Your task to perform on an android device: Empty the shopping cart on newegg. Add alienware area 51 to the cart on newegg, then select checkout. Image 0: 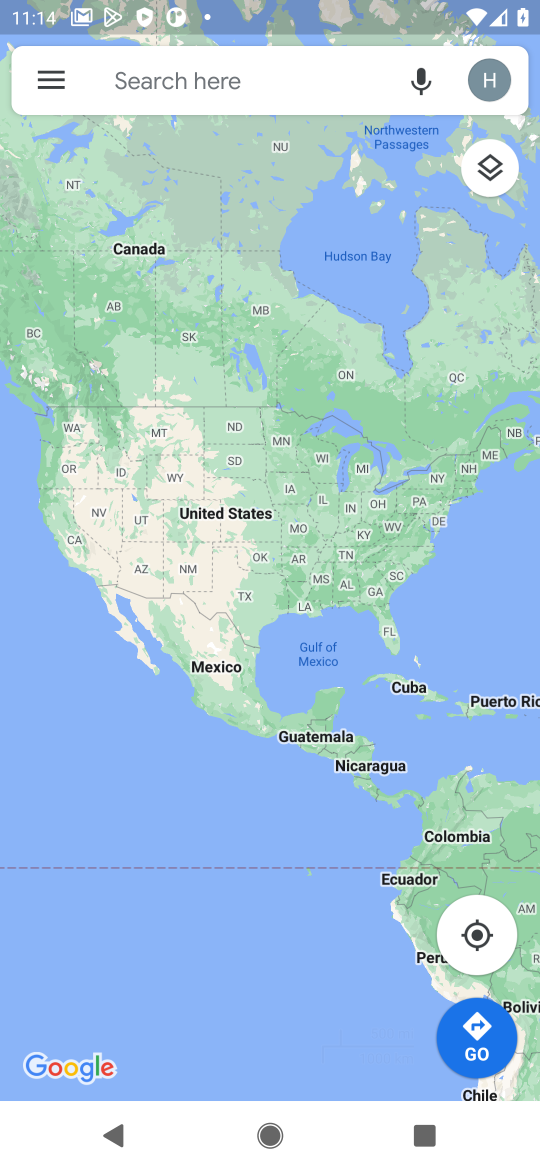
Step 0: press home button
Your task to perform on an android device: Empty the shopping cart on newegg. Add alienware area 51 to the cart on newegg, then select checkout. Image 1: 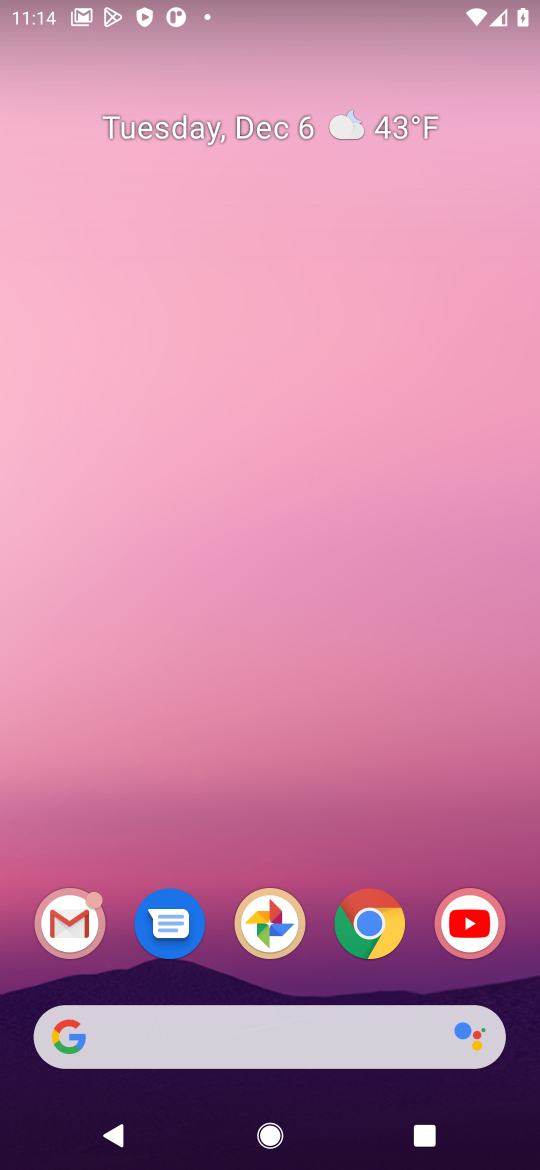
Step 1: click (379, 937)
Your task to perform on an android device: Empty the shopping cart on newegg. Add alienware area 51 to the cart on newegg, then select checkout. Image 2: 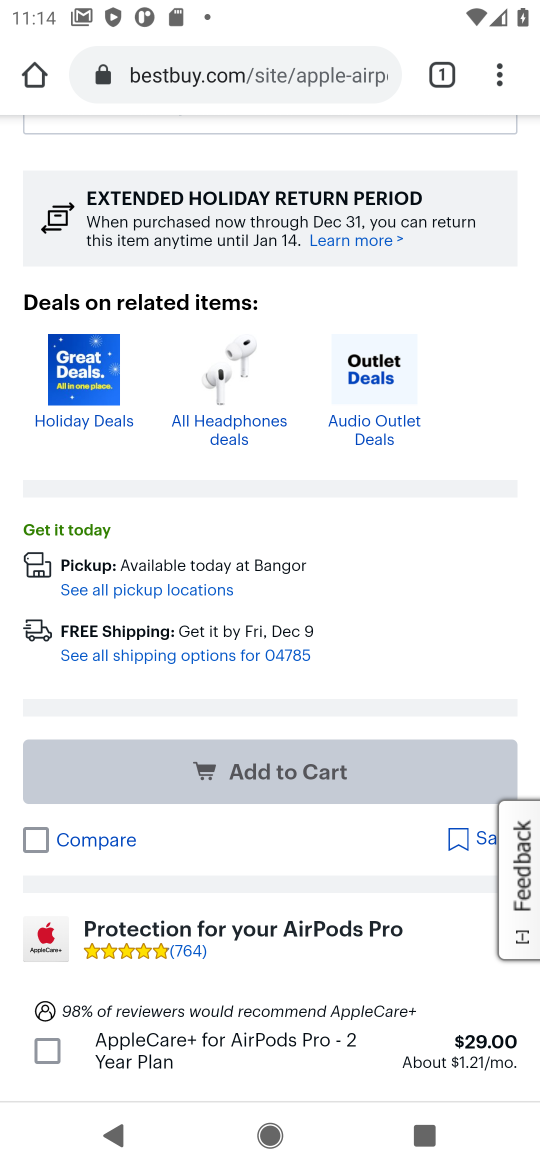
Step 2: click (215, 66)
Your task to perform on an android device: Empty the shopping cart on newegg. Add alienware area 51 to the cart on newegg, then select checkout. Image 3: 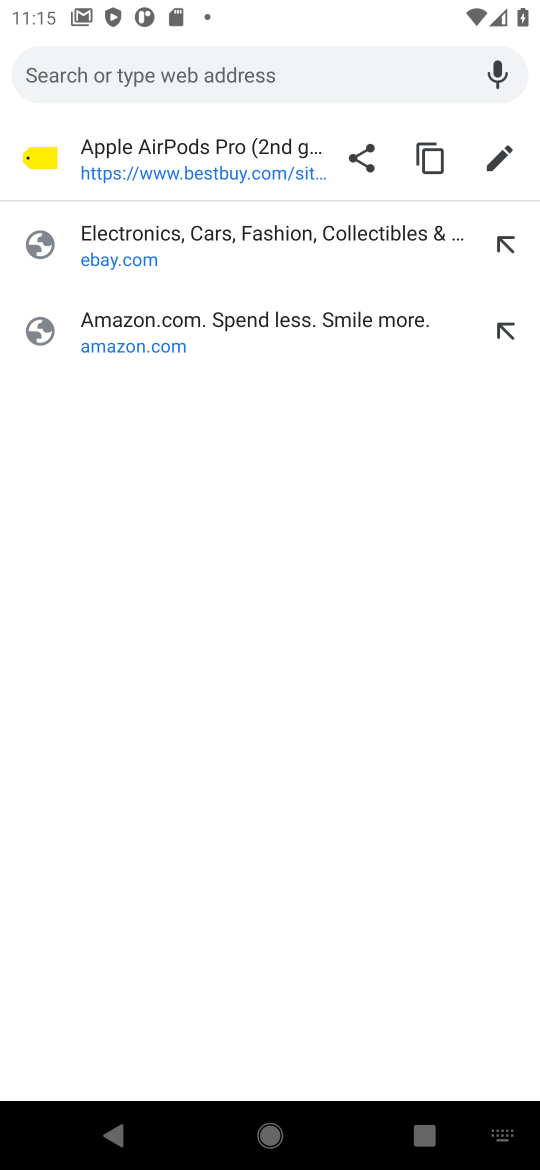
Step 3: type "NEWEGG"
Your task to perform on an android device: Empty the shopping cart on newegg. Add alienware area 51 to the cart on newegg, then select checkout. Image 4: 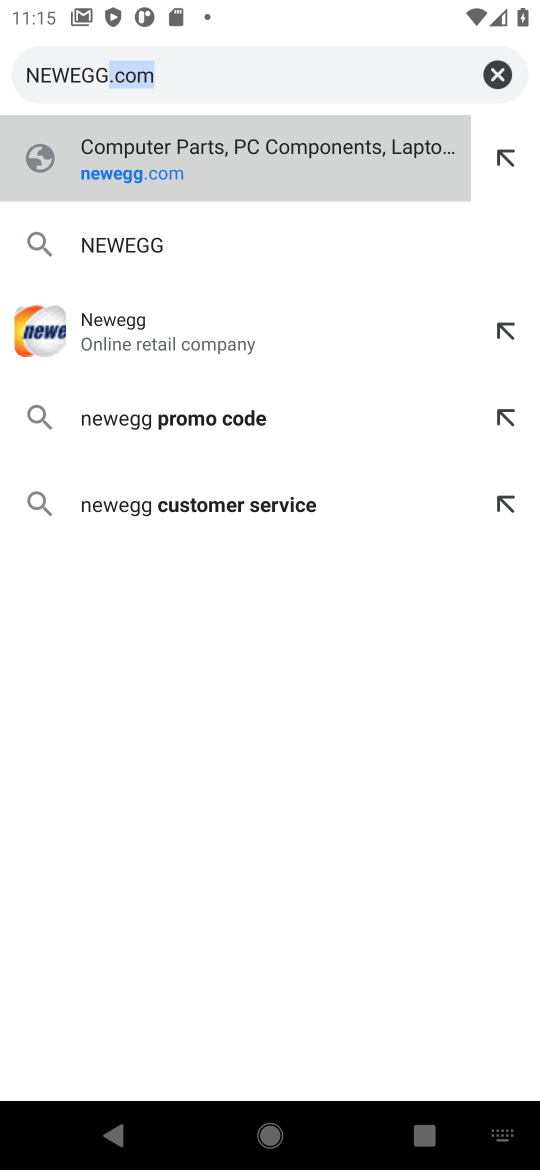
Step 4: click (138, 147)
Your task to perform on an android device: Empty the shopping cart on newegg. Add alienware area 51 to the cart on newegg, then select checkout. Image 5: 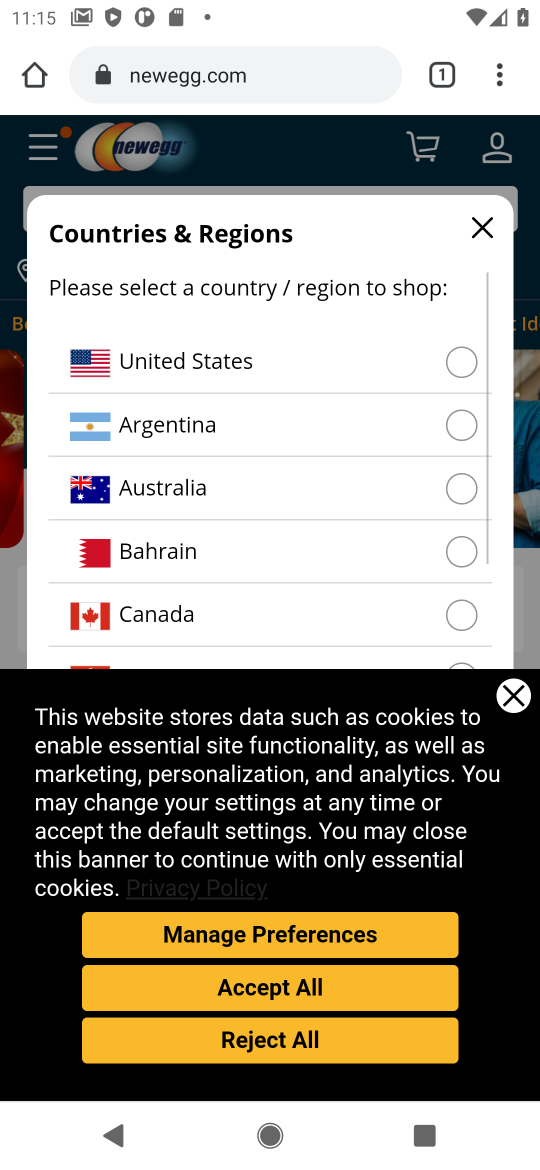
Step 5: click (219, 1037)
Your task to perform on an android device: Empty the shopping cart on newegg. Add alienware area 51 to the cart on newegg, then select checkout. Image 6: 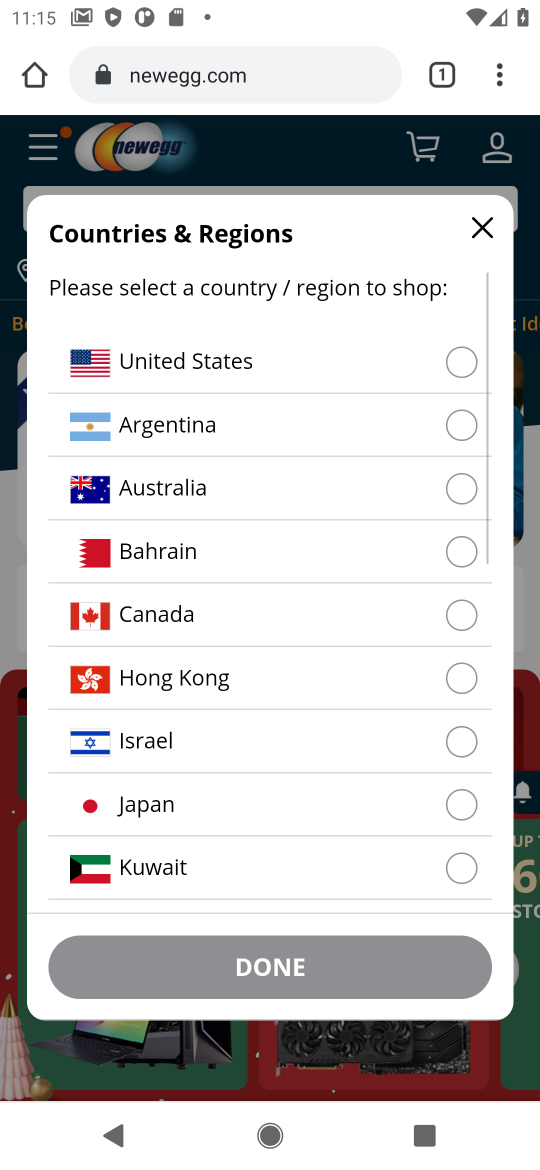
Step 6: click (257, 367)
Your task to perform on an android device: Empty the shopping cart on newegg. Add alienware area 51 to the cart on newegg, then select checkout. Image 7: 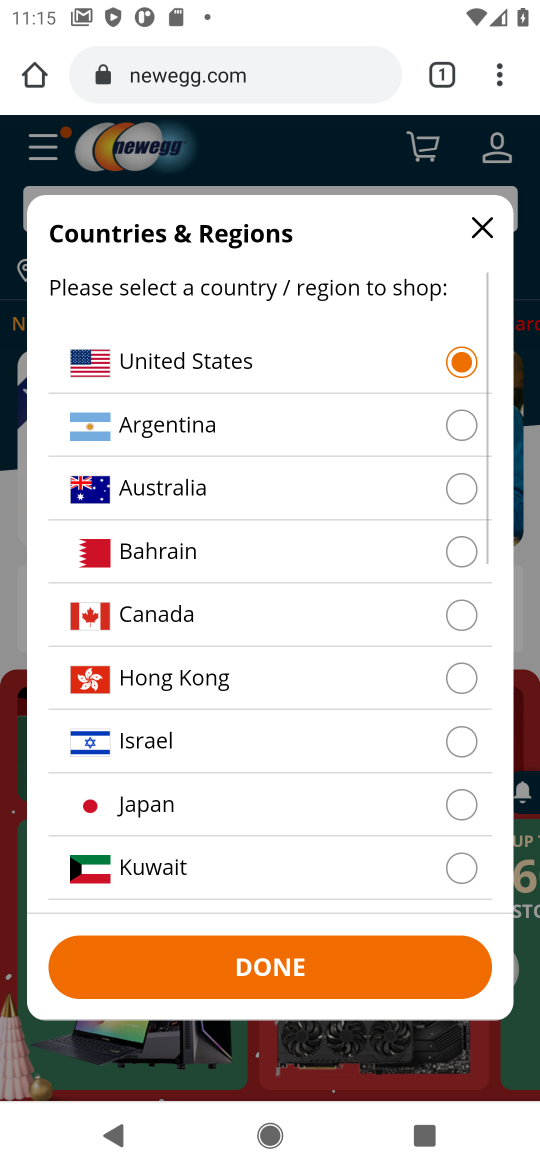
Step 7: click (317, 976)
Your task to perform on an android device: Empty the shopping cart on newegg. Add alienware area 51 to the cart on newegg, then select checkout. Image 8: 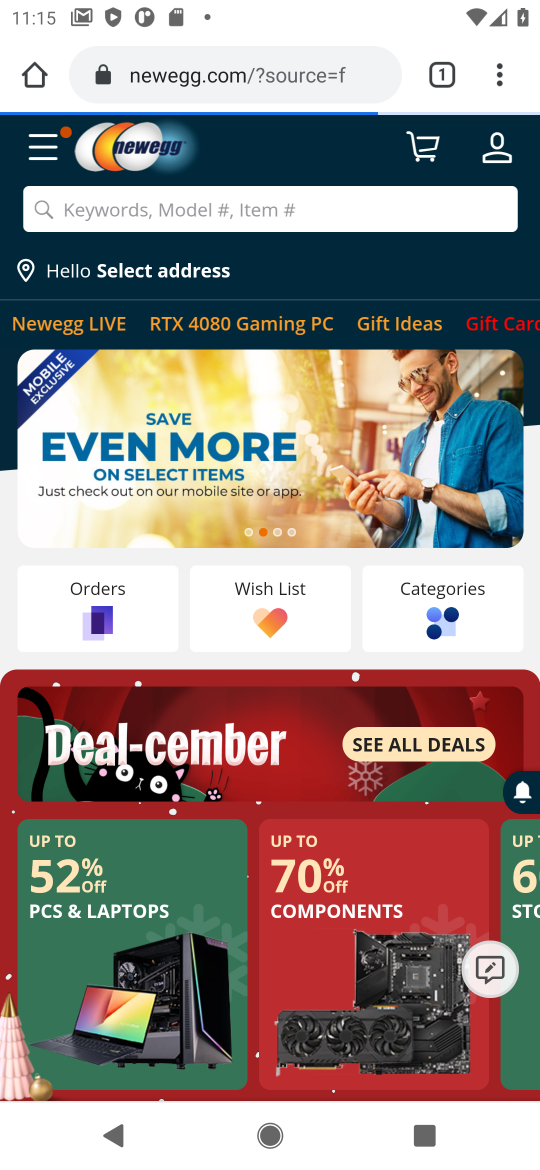
Step 8: click (493, 152)
Your task to perform on an android device: Empty the shopping cart on newegg. Add alienware area 51 to the cart on newegg, then select checkout. Image 9: 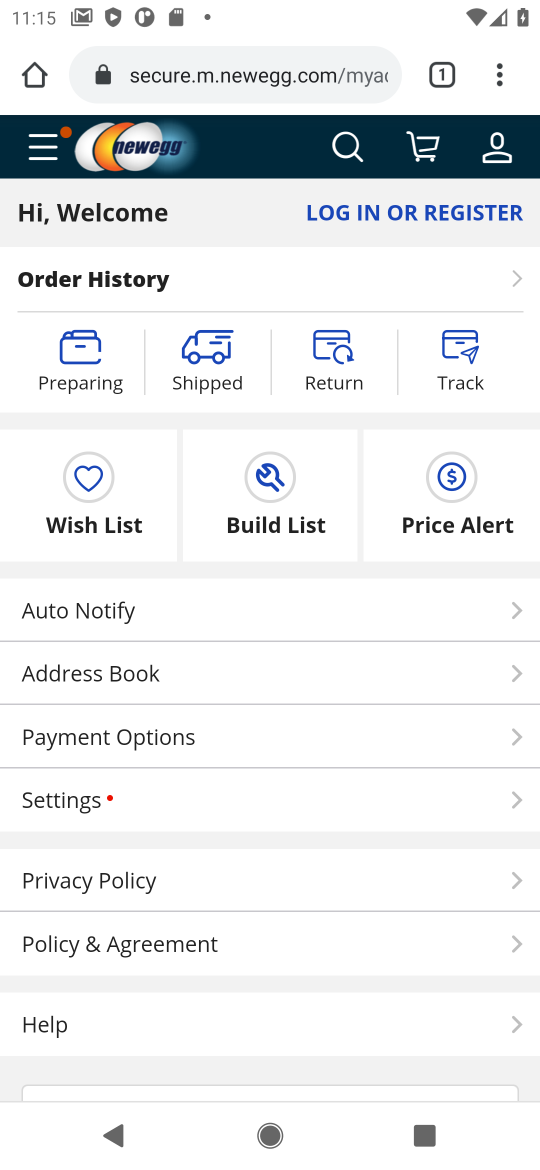
Step 9: click (350, 149)
Your task to perform on an android device: Empty the shopping cart on newegg. Add alienware area 51 to the cart on newegg, then select checkout. Image 10: 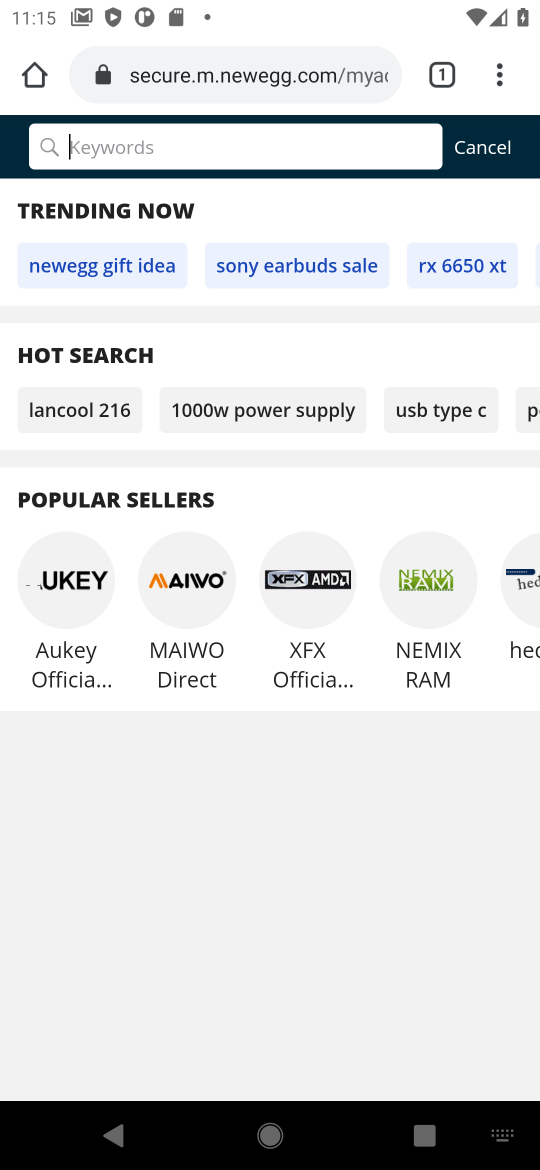
Step 10: type "ALIENWARE AREA 51"
Your task to perform on an android device: Empty the shopping cart on newegg. Add alienware area 51 to the cart on newegg, then select checkout. Image 11: 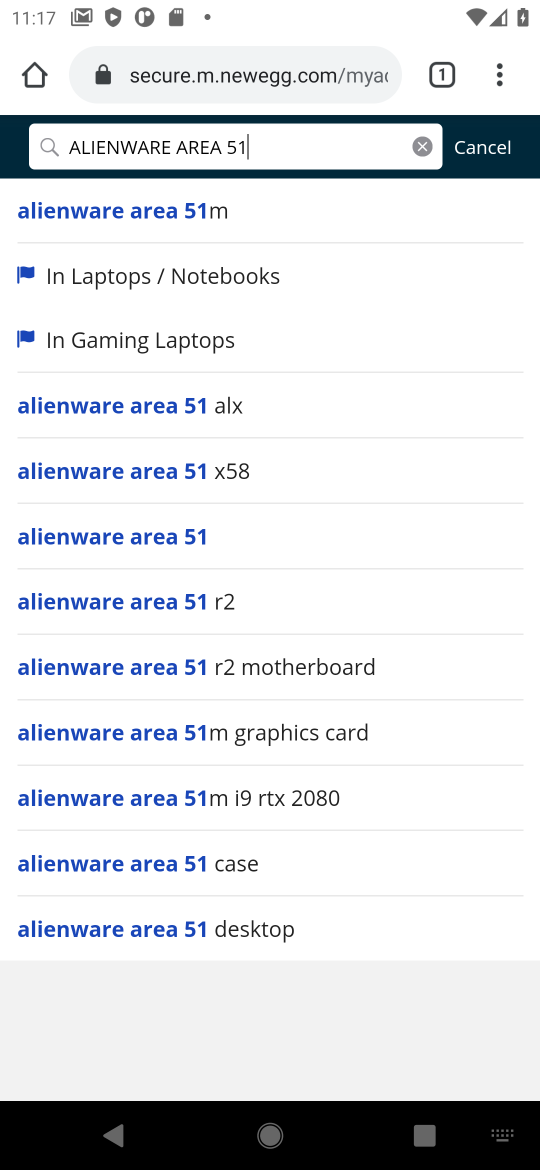
Step 11: click (185, 204)
Your task to perform on an android device: Empty the shopping cart on newegg. Add alienware area 51 to the cart on newegg, then select checkout. Image 12: 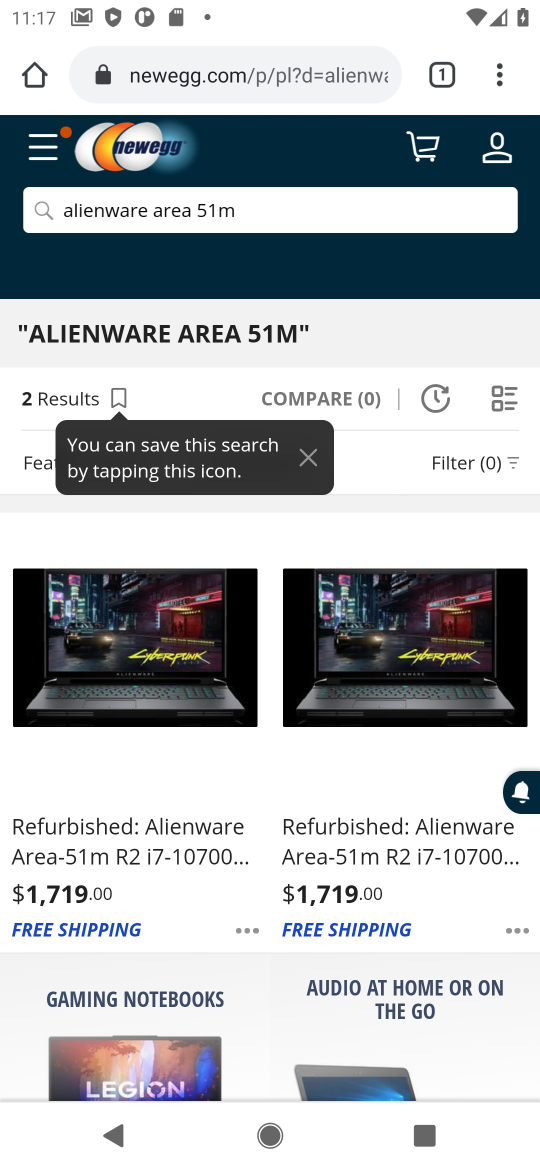
Step 12: click (112, 609)
Your task to perform on an android device: Empty the shopping cart on newegg. Add alienware area 51 to the cart on newegg, then select checkout. Image 13: 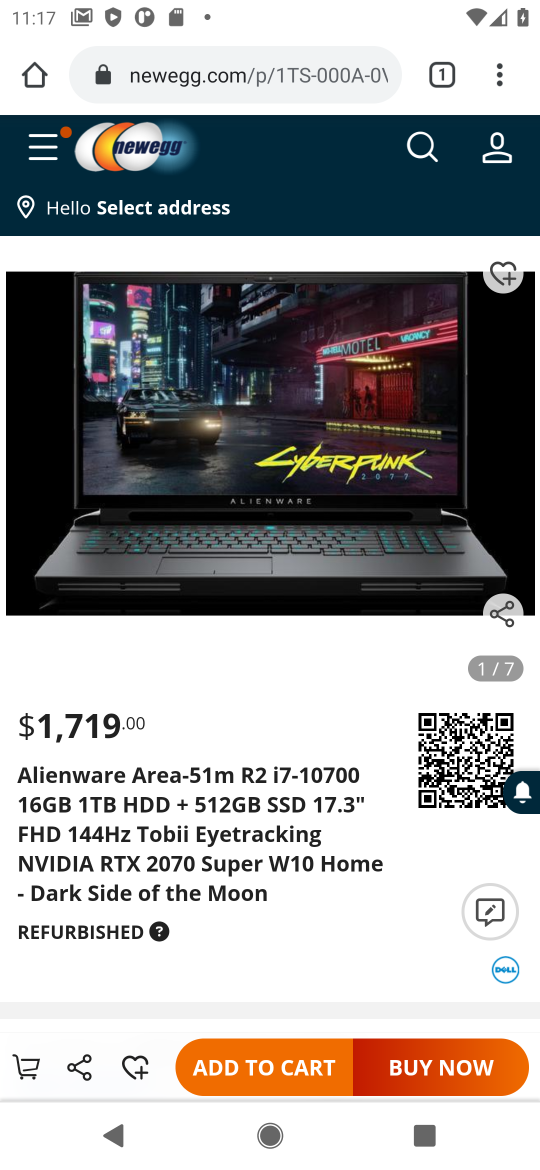
Step 13: click (280, 1067)
Your task to perform on an android device: Empty the shopping cart on newegg. Add alienware area 51 to the cart on newegg, then select checkout. Image 14: 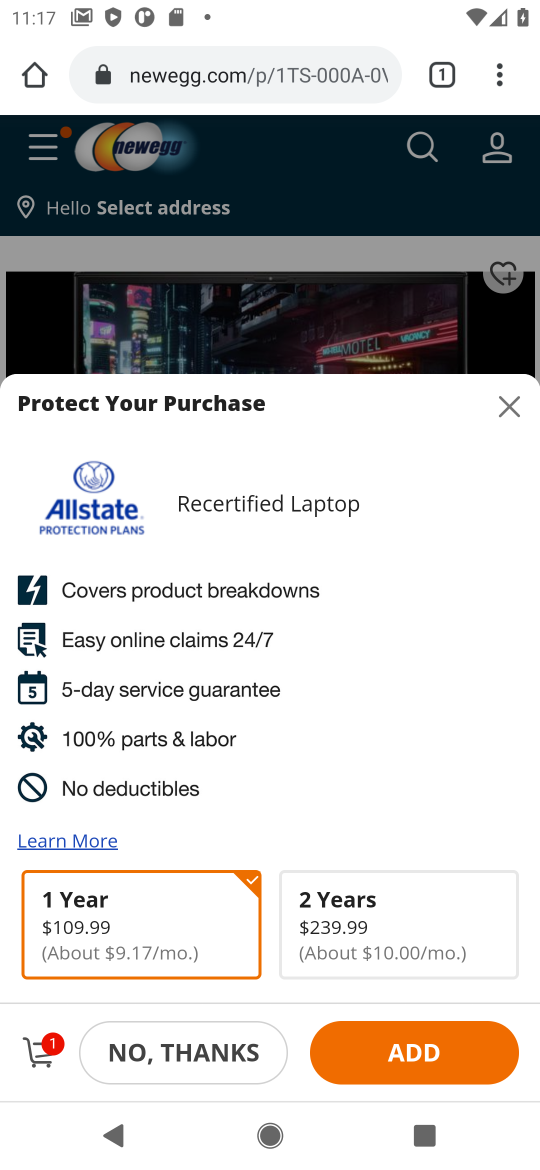
Step 14: click (184, 1055)
Your task to perform on an android device: Empty the shopping cart on newegg. Add alienware area 51 to the cart on newegg, then select checkout. Image 15: 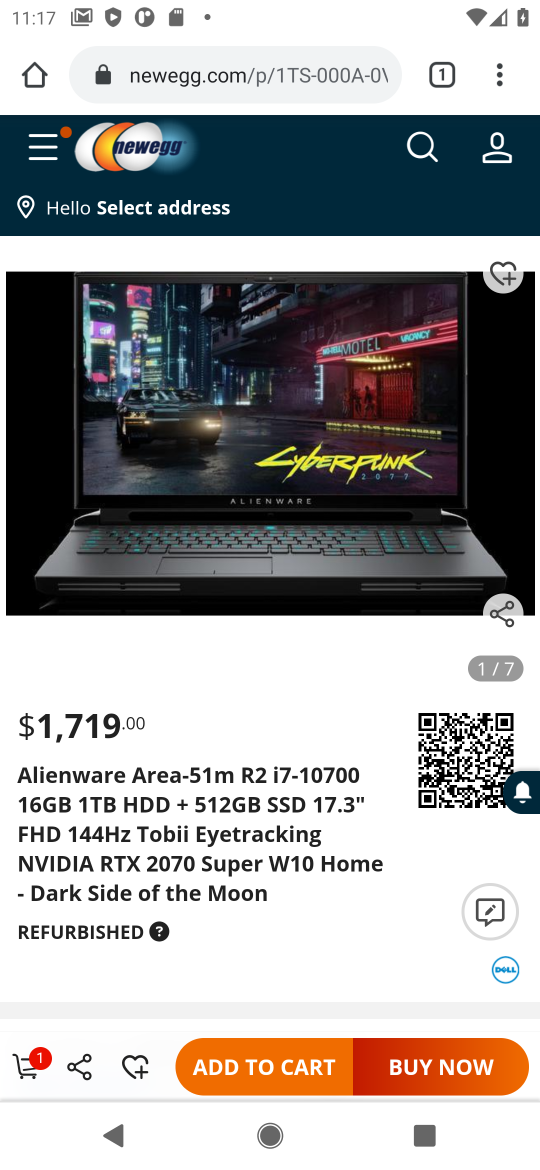
Step 15: click (496, 144)
Your task to perform on an android device: Empty the shopping cart on newegg. Add alienware area 51 to the cart on newegg, then select checkout. Image 16: 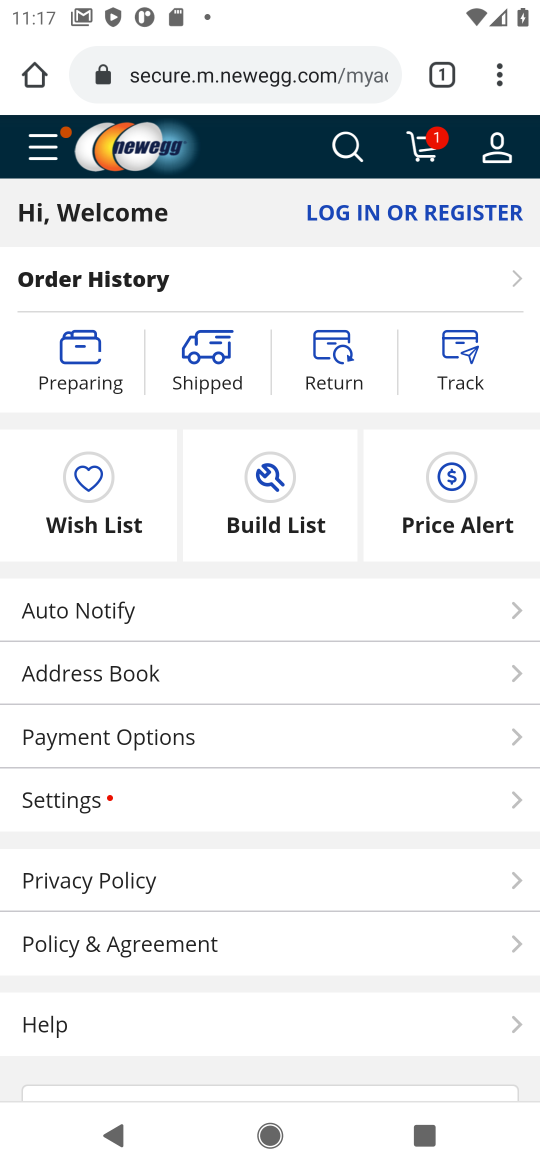
Step 16: click (427, 146)
Your task to perform on an android device: Empty the shopping cart on newegg. Add alienware area 51 to the cart on newegg, then select checkout. Image 17: 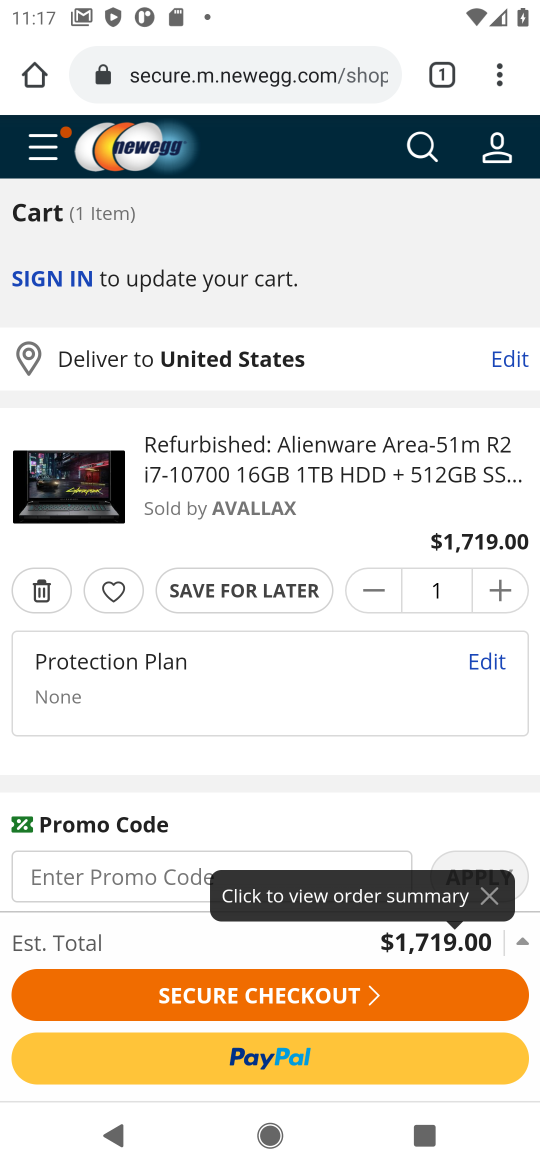
Step 17: click (282, 992)
Your task to perform on an android device: Empty the shopping cart on newegg. Add alienware area 51 to the cart on newegg, then select checkout. Image 18: 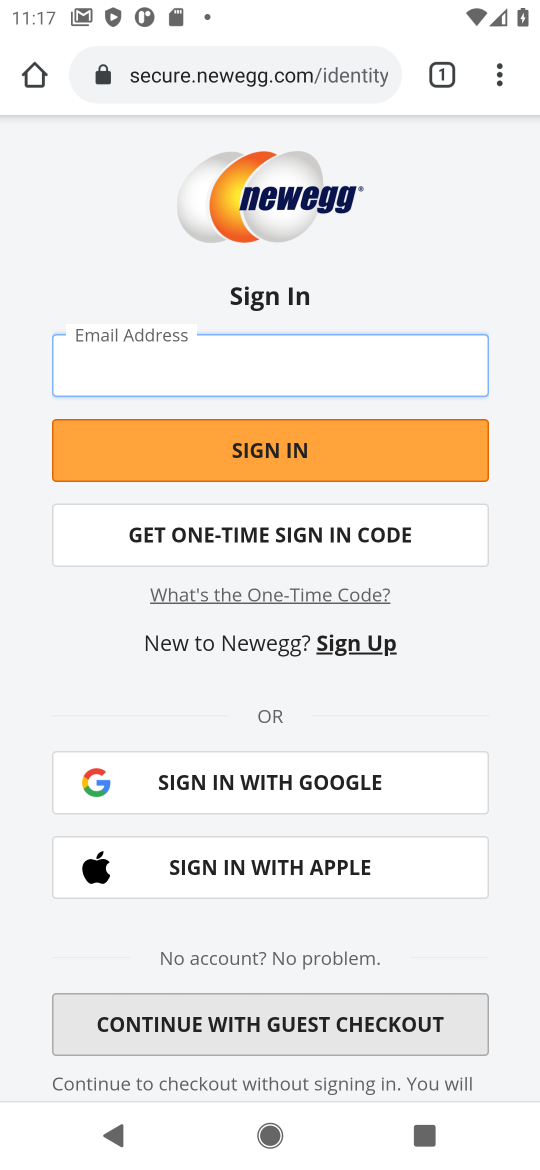
Step 18: task complete